Your task to perform on an android device: Open Maps and search for coffee Image 0: 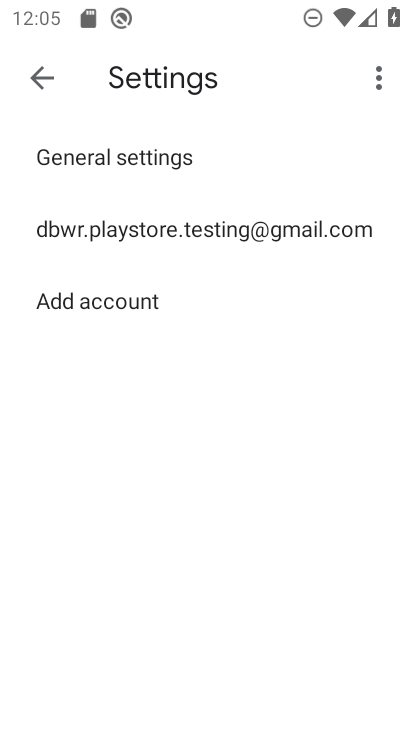
Step 0: press home button
Your task to perform on an android device: Open Maps and search for coffee Image 1: 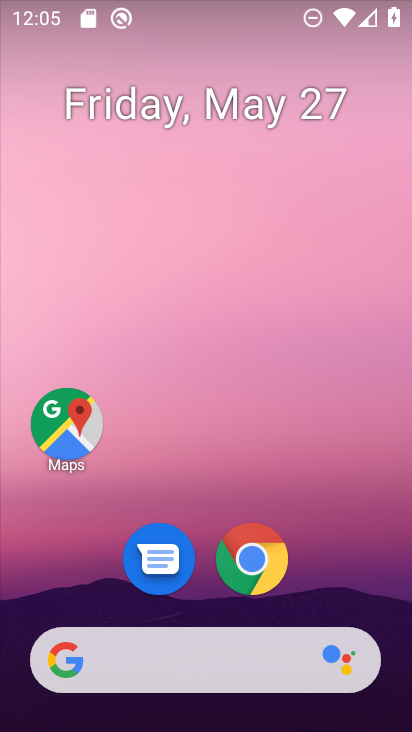
Step 1: click (87, 418)
Your task to perform on an android device: Open Maps and search for coffee Image 2: 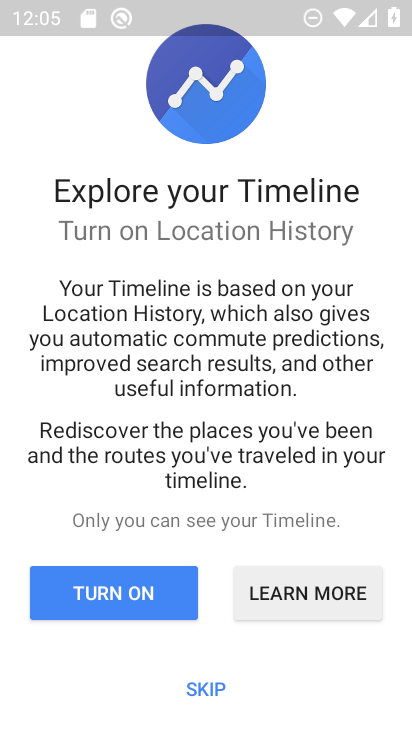
Step 2: click (194, 680)
Your task to perform on an android device: Open Maps and search for coffee Image 3: 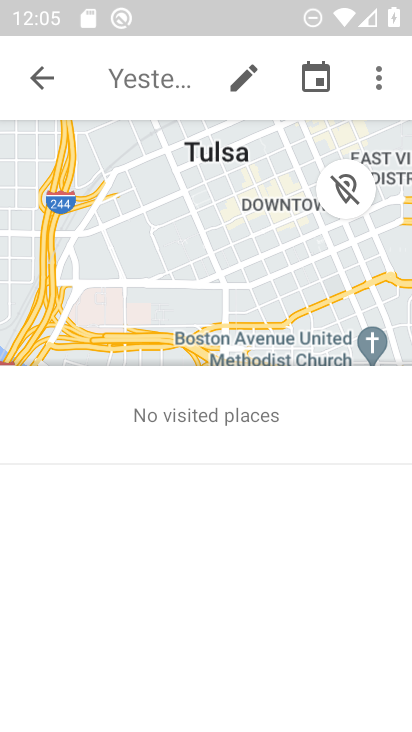
Step 3: click (146, 70)
Your task to perform on an android device: Open Maps and search for coffee Image 4: 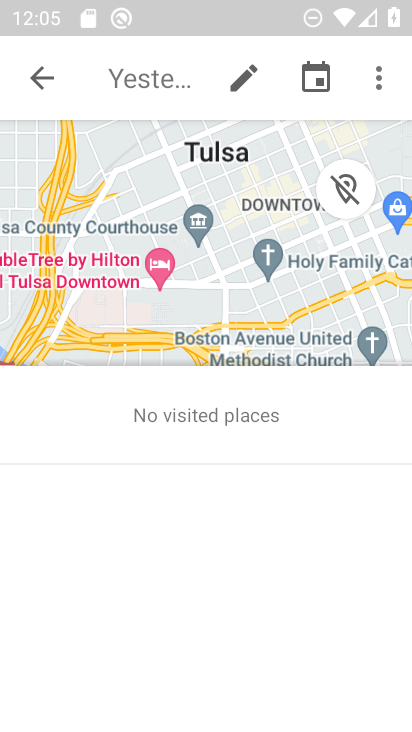
Step 4: click (146, 70)
Your task to perform on an android device: Open Maps and search for coffee Image 5: 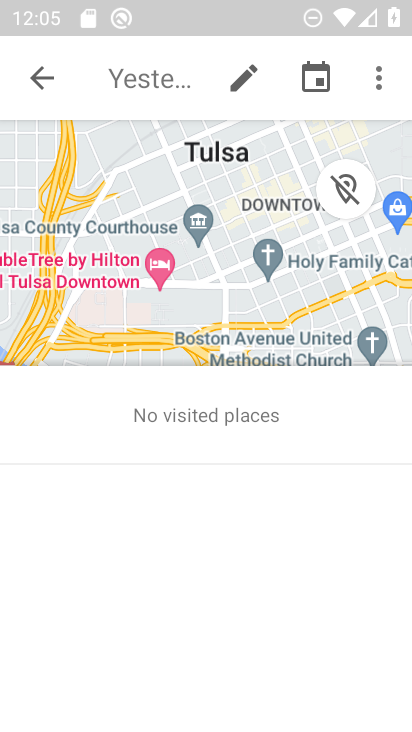
Step 5: click (146, 70)
Your task to perform on an android device: Open Maps and search for coffee Image 6: 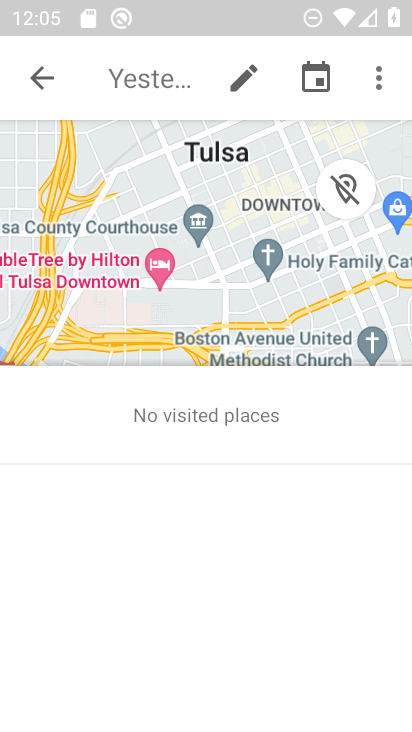
Step 6: click (119, 70)
Your task to perform on an android device: Open Maps and search for coffee Image 7: 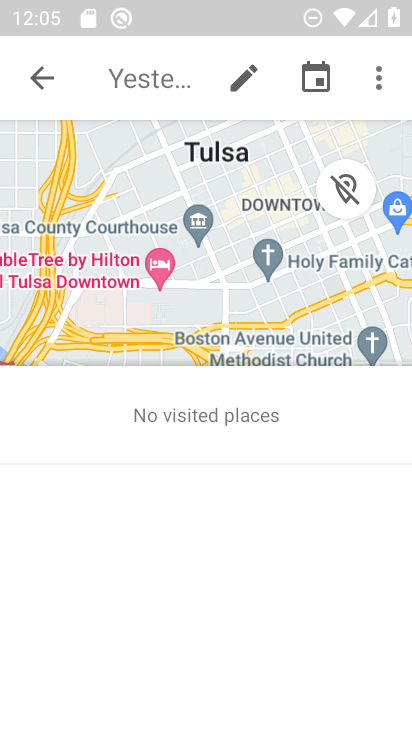
Step 7: click (119, 70)
Your task to perform on an android device: Open Maps and search for coffee Image 8: 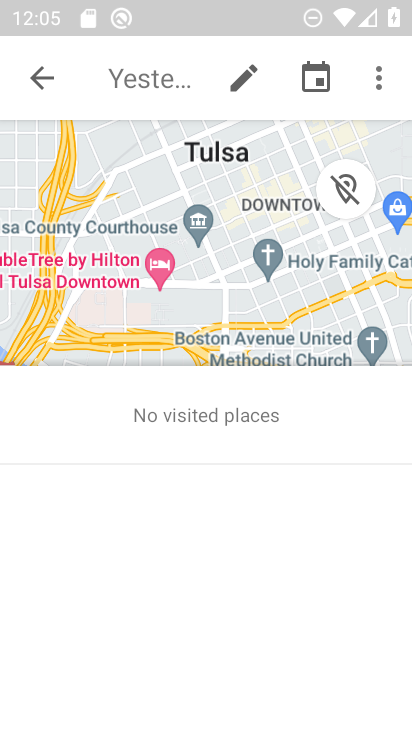
Step 8: click (119, 70)
Your task to perform on an android device: Open Maps and search for coffee Image 9: 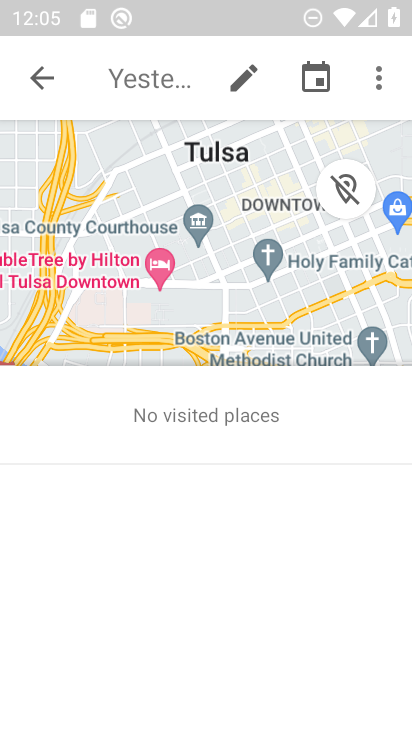
Step 9: click (132, 44)
Your task to perform on an android device: Open Maps and search for coffee Image 10: 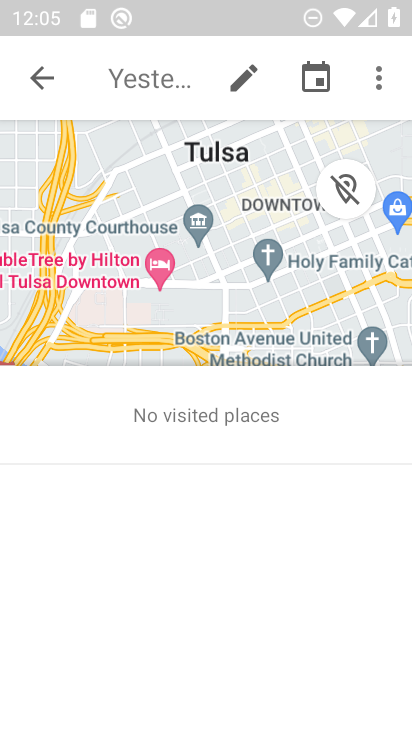
Step 10: click (132, 48)
Your task to perform on an android device: Open Maps and search for coffee Image 11: 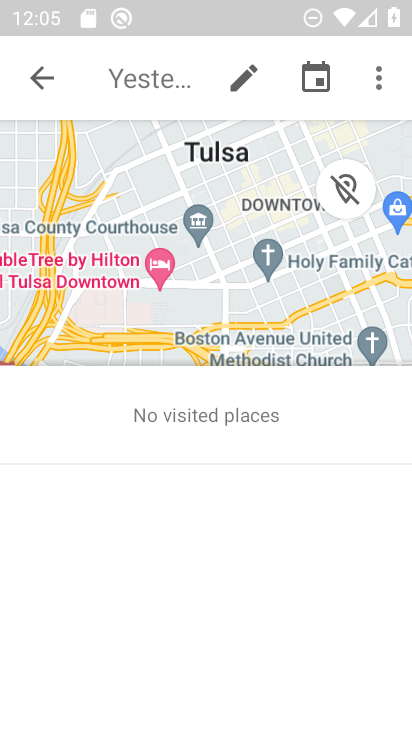
Step 11: click (132, 63)
Your task to perform on an android device: Open Maps and search for coffee Image 12: 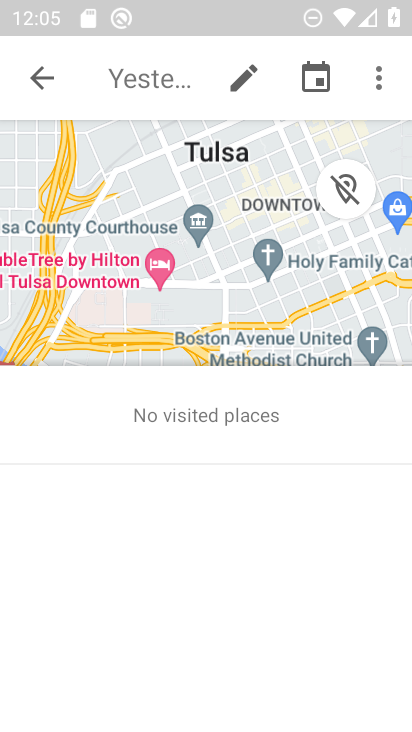
Step 12: press back button
Your task to perform on an android device: Open Maps and search for coffee Image 13: 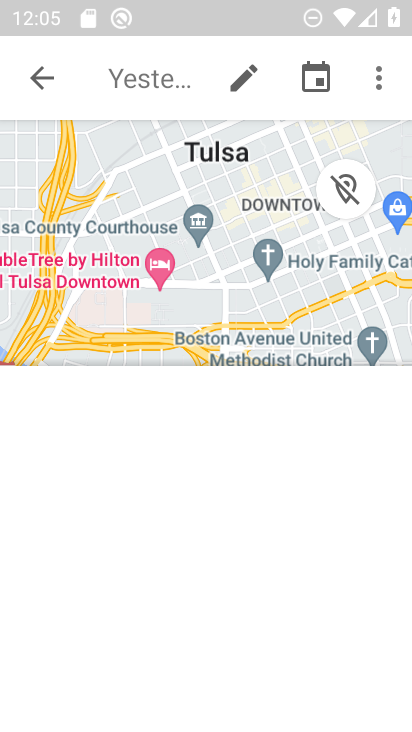
Step 13: press back button
Your task to perform on an android device: Open Maps and search for coffee Image 14: 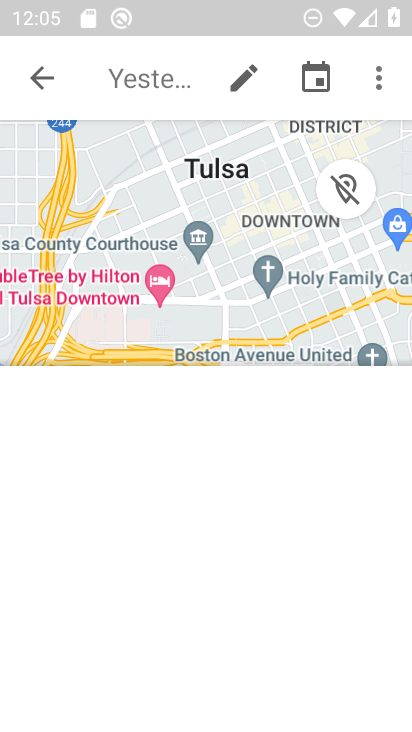
Step 14: press back button
Your task to perform on an android device: Open Maps and search for coffee Image 15: 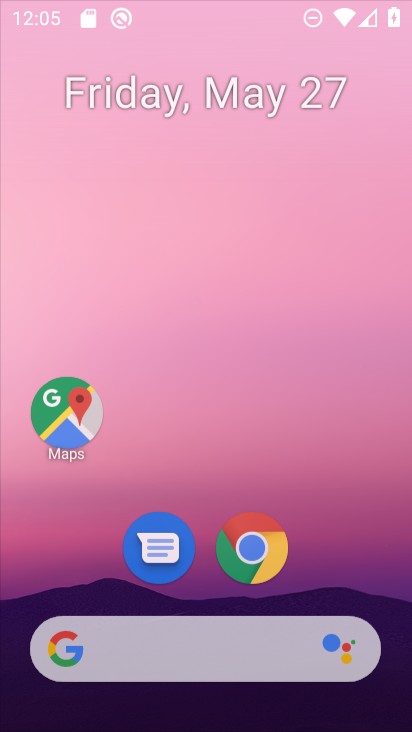
Step 15: press back button
Your task to perform on an android device: Open Maps and search for coffee Image 16: 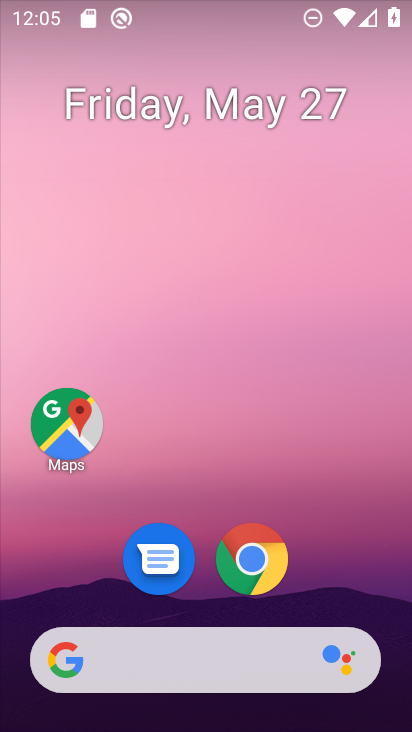
Step 16: press back button
Your task to perform on an android device: Open Maps and search for coffee Image 17: 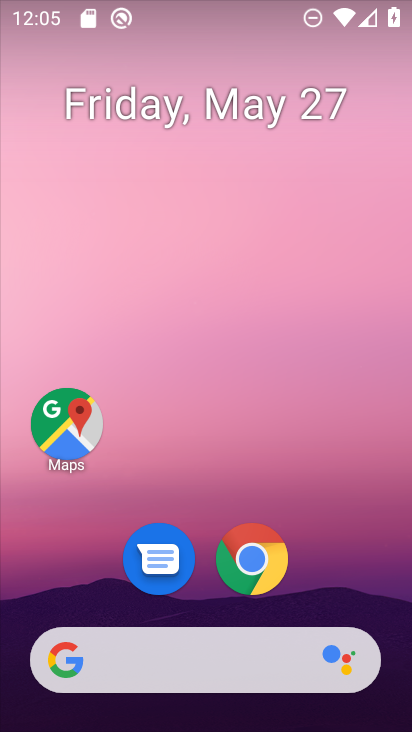
Step 17: click (66, 440)
Your task to perform on an android device: Open Maps and search for coffee Image 18: 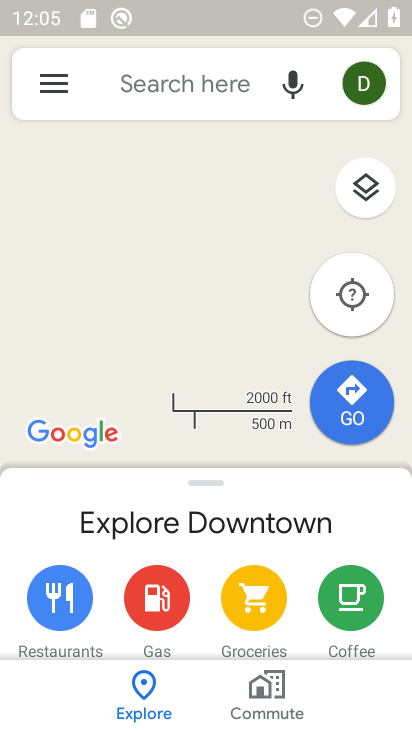
Step 18: click (110, 82)
Your task to perform on an android device: Open Maps and search for coffee Image 19: 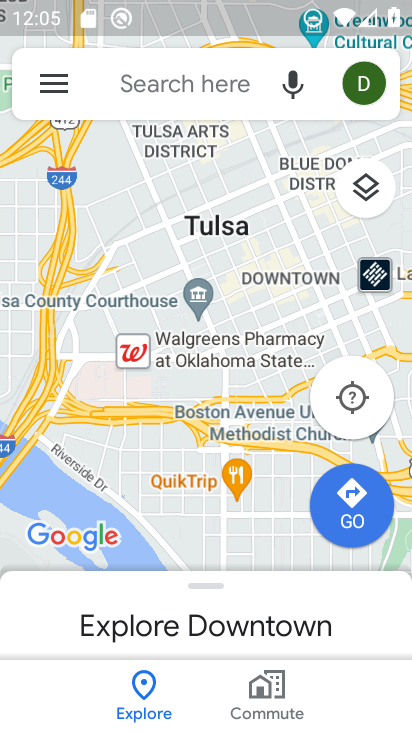
Step 19: click (184, 88)
Your task to perform on an android device: Open Maps and search for coffee Image 20: 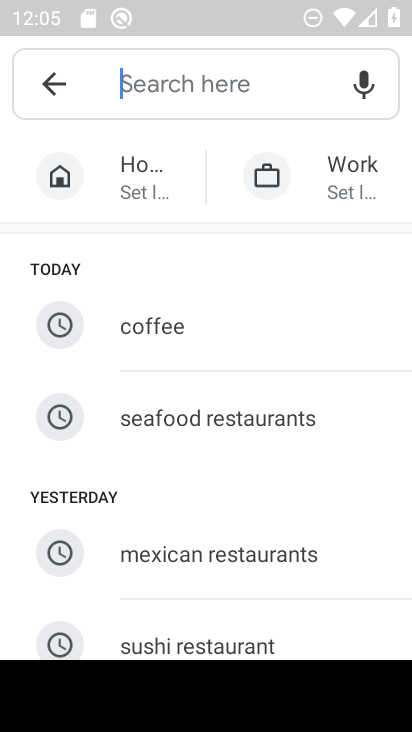
Step 20: click (253, 314)
Your task to perform on an android device: Open Maps and search for coffee Image 21: 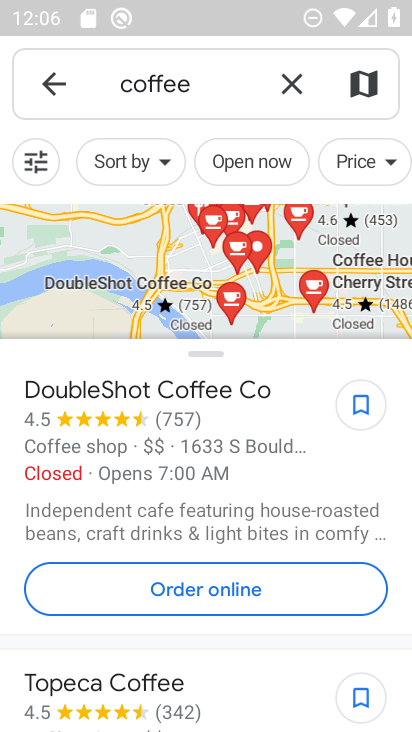
Step 21: task complete